Your task to perform on an android device: Search for hotels in Chicago Image 0: 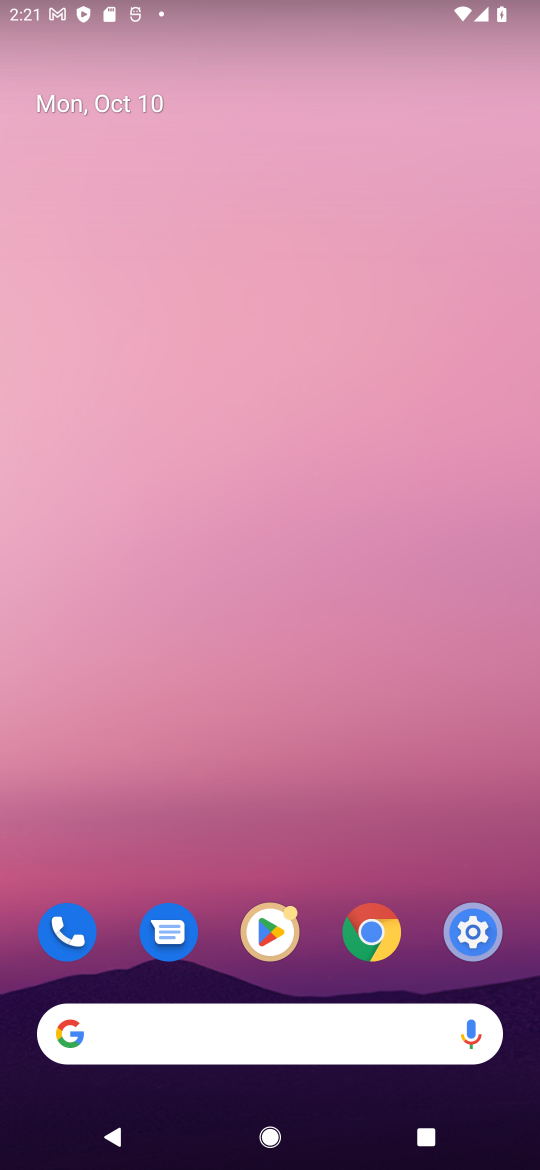
Step 0: click (291, 1033)
Your task to perform on an android device: Search for hotels in Chicago Image 1: 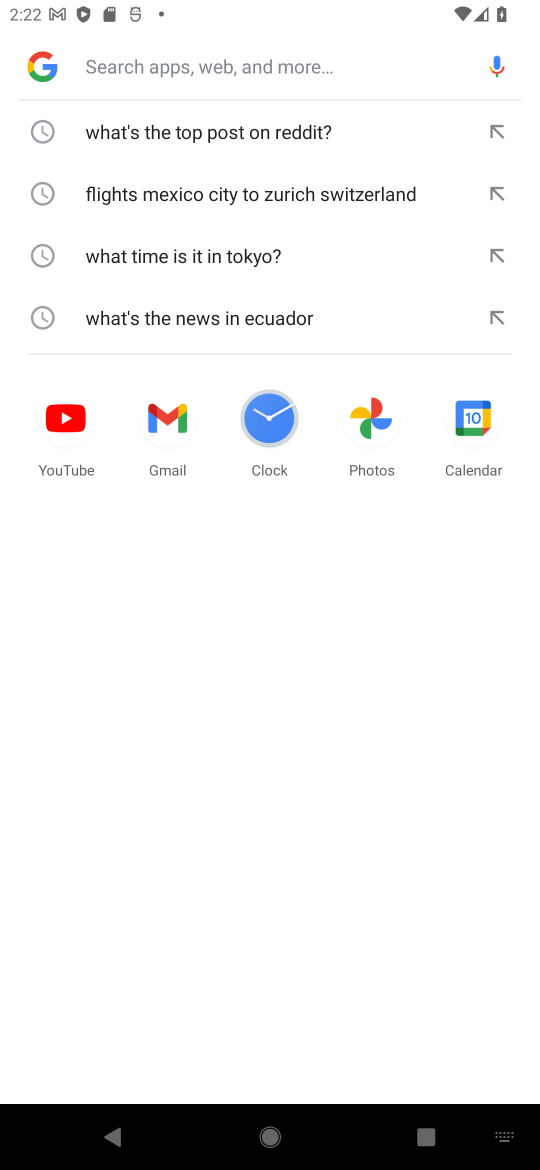
Step 1: type "hotels in Chicago"
Your task to perform on an android device: Search for hotels in Chicago Image 2: 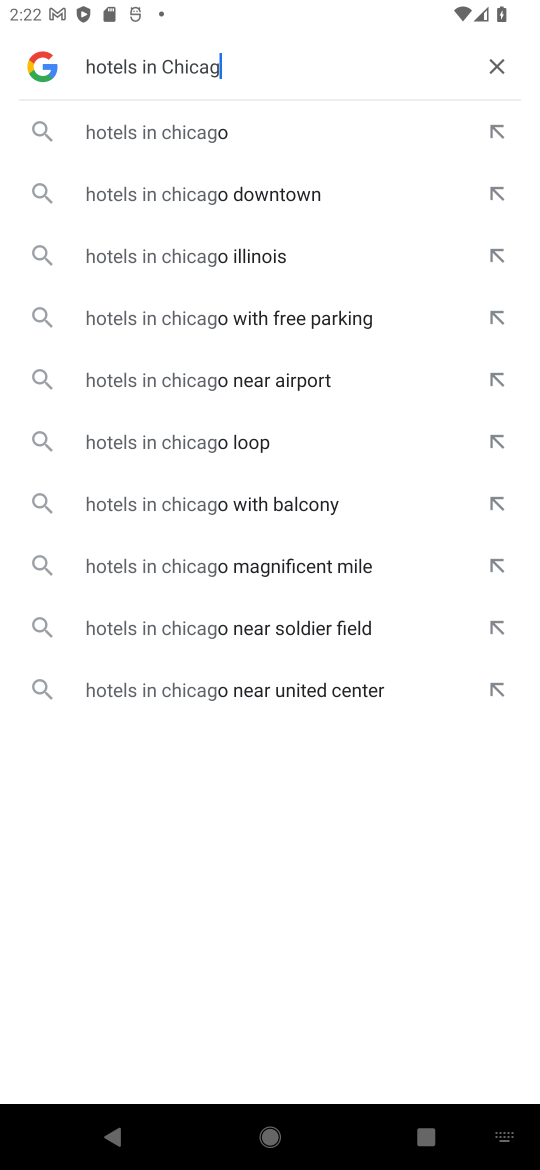
Step 2: press enter
Your task to perform on an android device: Search for hotels in Chicago Image 3: 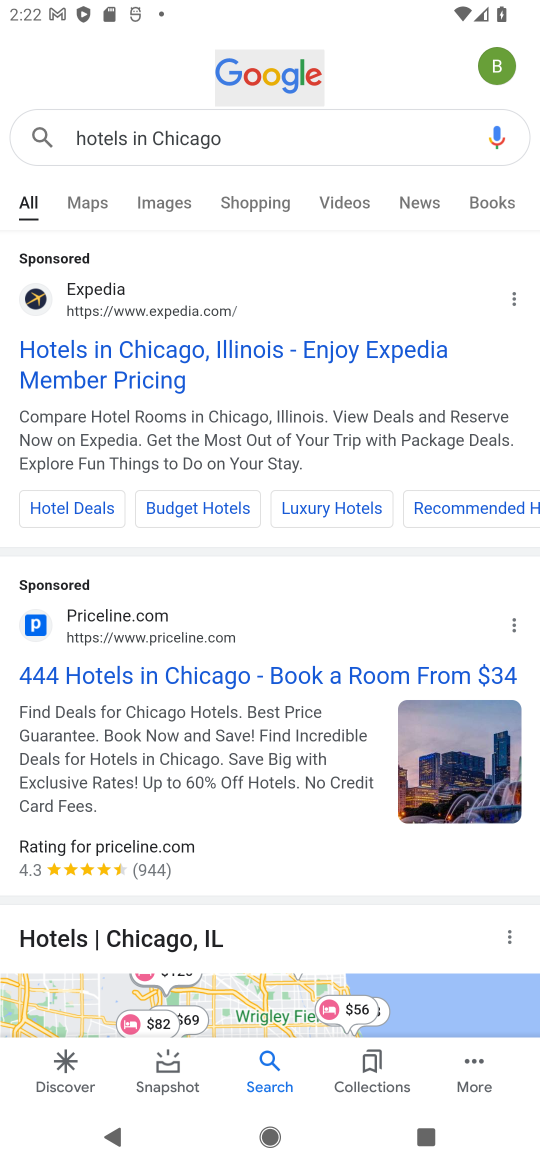
Step 3: click (303, 355)
Your task to perform on an android device: Search for hotels in Chicago Image 4: 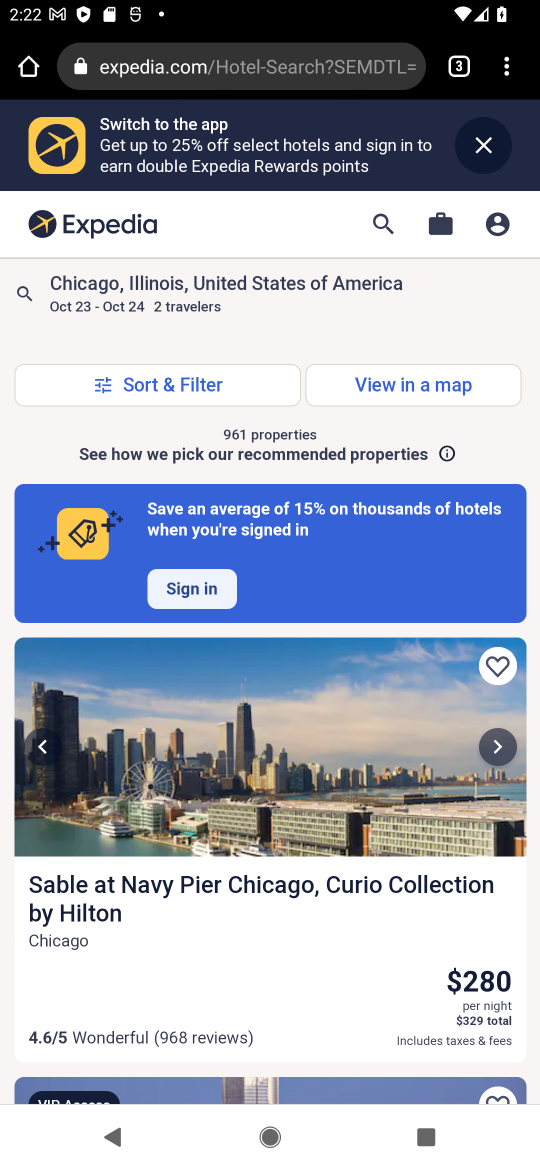
Step 4: task complete